Your task to perform on an android device: toggle airplane mode Image 0: 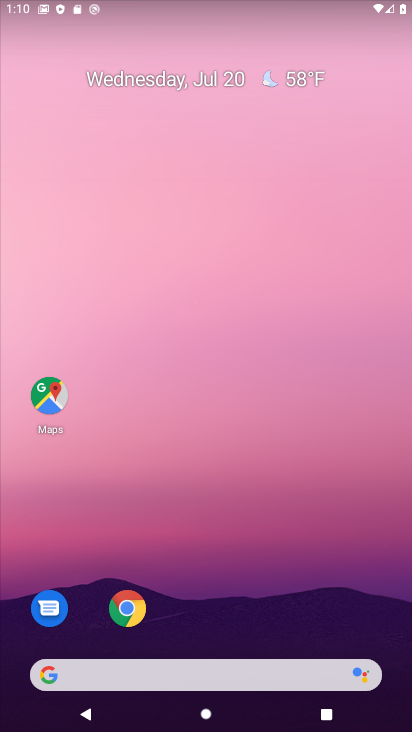
Step 0: drag from (234, 730) to (234, 453)
Your task to perform on an android device: toggle airplane mode Image 1: 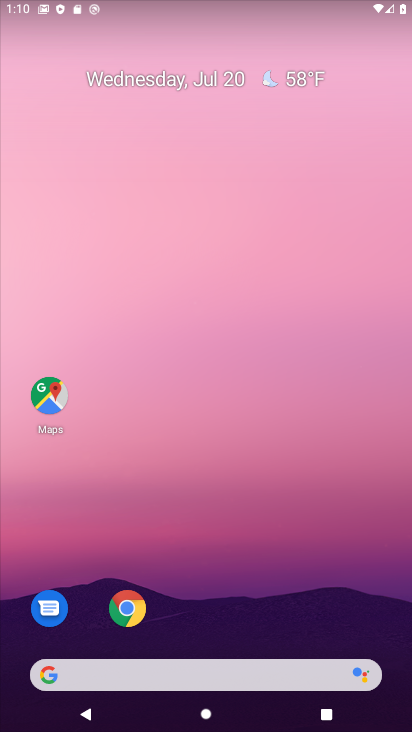
Step 1: drag from (229, 727) to (229, 148)
Your task to perform on an android device: toggle airplane mode Image 2: 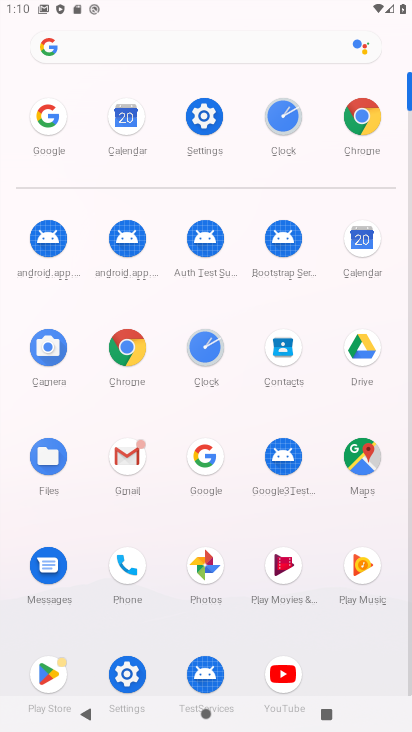
Step 2: click (204, 113)
Your task to perform on an android device: toggle airplane mode Image 3: 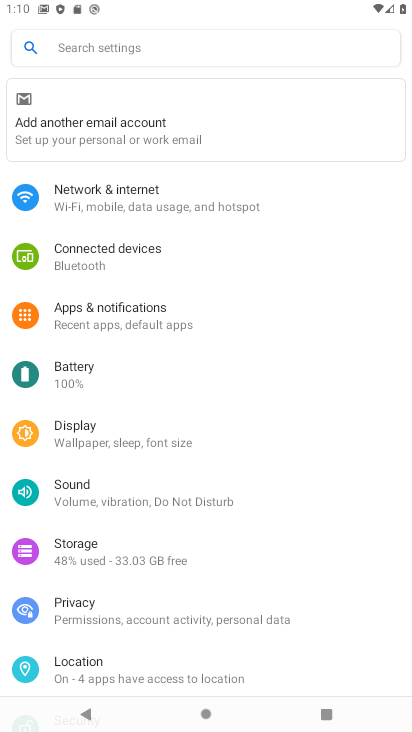
Step 3: click (106, 194)
Your task to perform on an android device: toggle airplane mode Image 4: 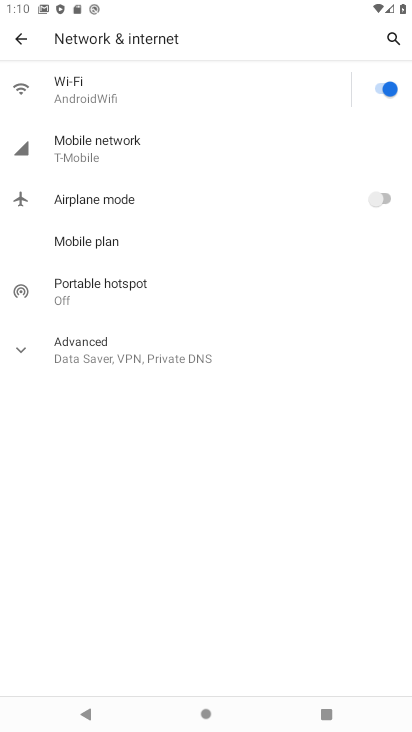
Step 4: click (384, 198)
Your task to perform on an android device: toggle airplane mode Image 5: 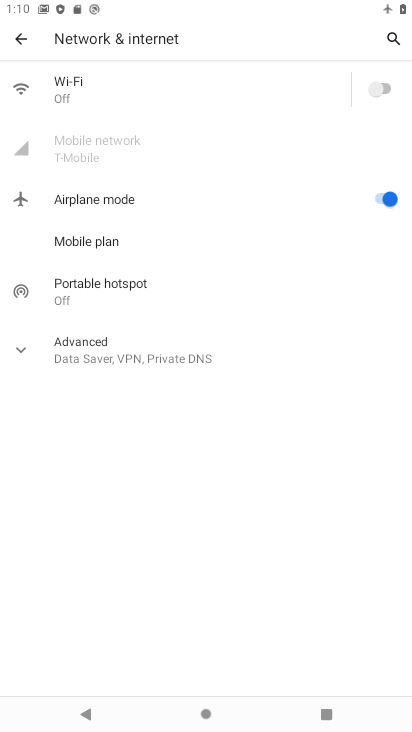
Step 5: task complete